Your task to perform on an android device: Show me popular videos on Youtube Image 0: 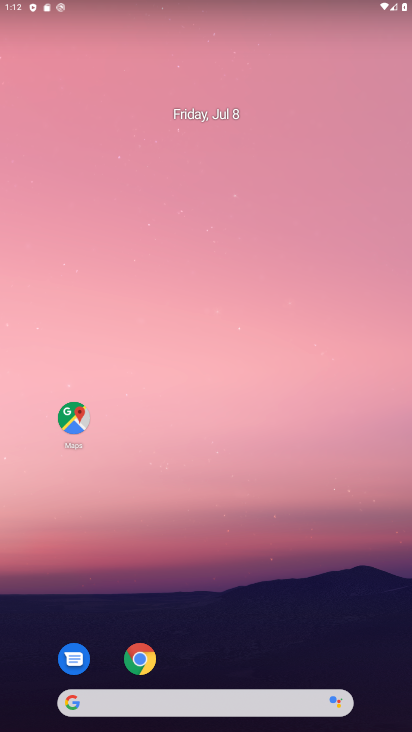
Step 0: drag from (239, 649) to (192, 301)
Your task to perform on an android device: Show me popular videos on Youtube Image 1: 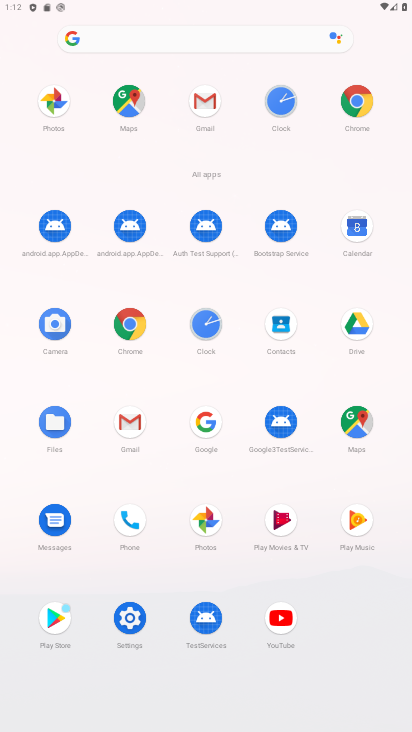
Step 1: click (203, 102)
Your task to perform on an android device: Show me popular videos on Youtube Image 2: 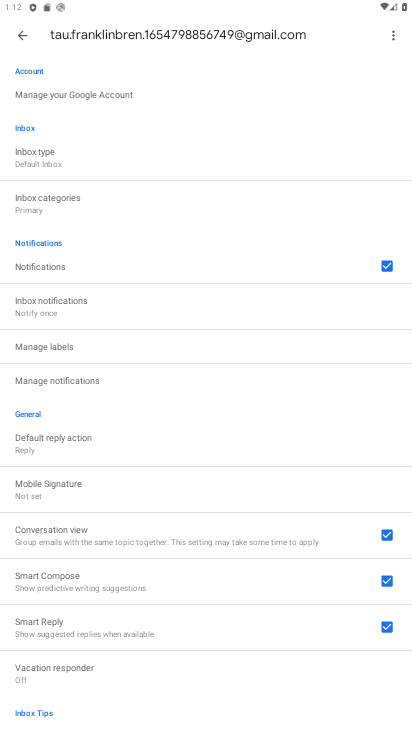
Step 2: press home button
Your task to perform on an android device: Show me popular videos on Youtube Image 3: 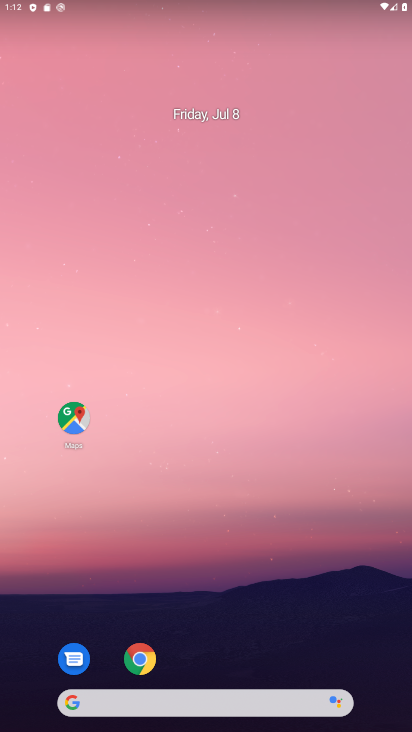
Step 3: drag from (258, 605) to (237, 166)
Your task to perform on an android device: Show me popular videos on Youtube Image 4: 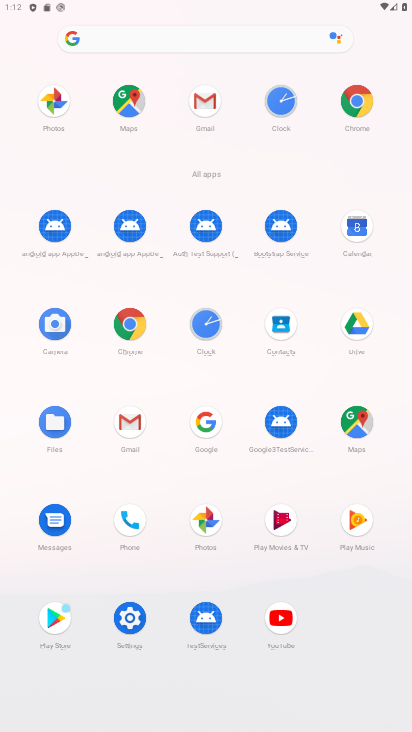
Step 4: click (284, 616)
Your task to perform on an android device: Show me popular videos on Youtube Image 5: 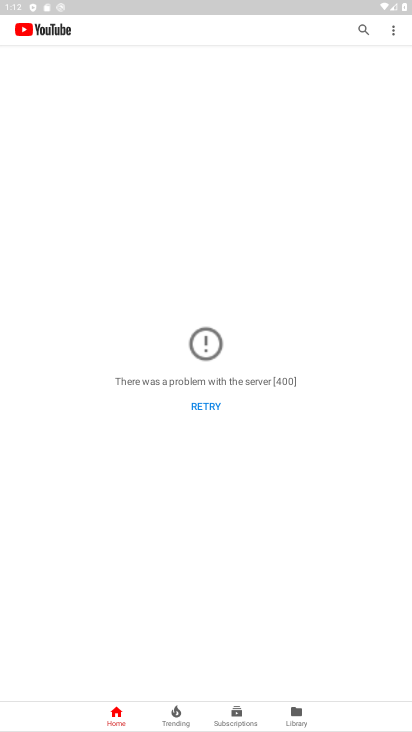
Step 5: click (207, 402)
Your task to perform on an android device: Show me popular videos on Youtube Image 6: 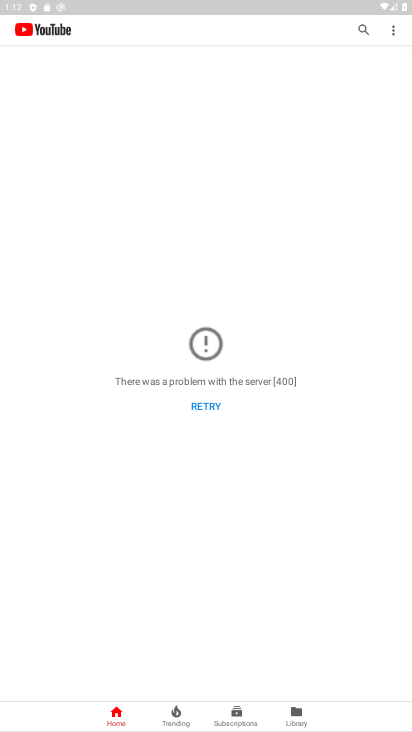
Step 6: click (236, 715)
Your task to perform on an android device: Show me popular videos on Youtube Image 7: 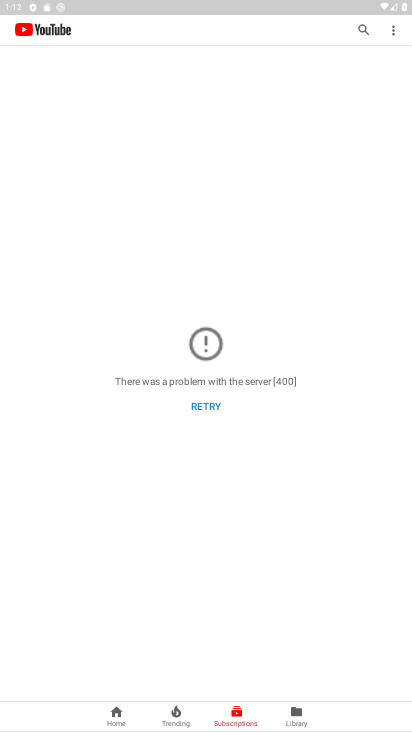
Step 7: click (291, 717)
Your task to perform on an android device: Show me popular videos on Youtube Image 8: 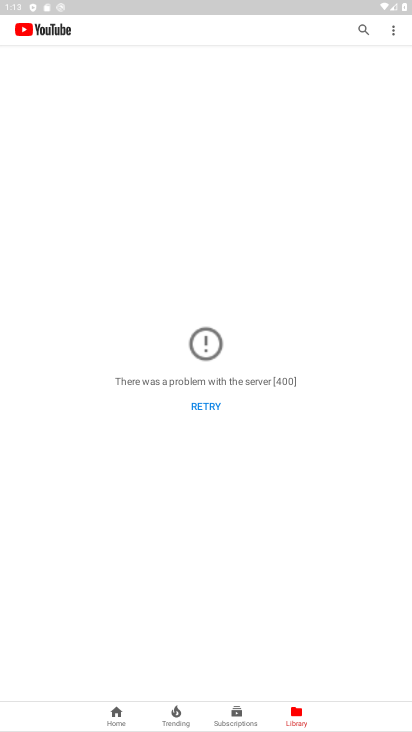
Step 8: task complete